Your task to perform on an android device: delete location history Image 0: 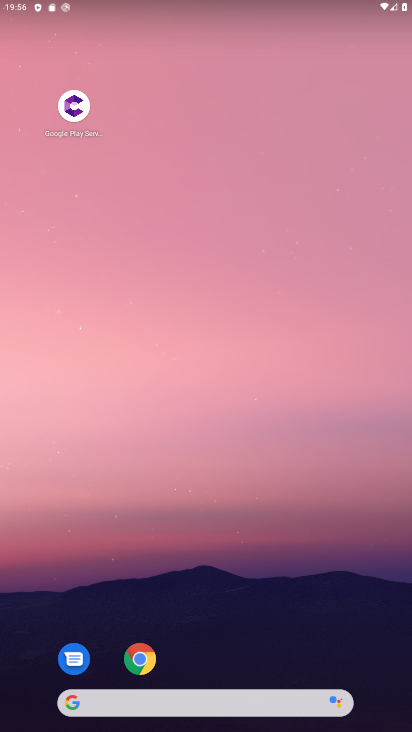
Step 0: drag from (347, 640) to (356, 41)
Your task to perform on an android device: delete location history Image 1: 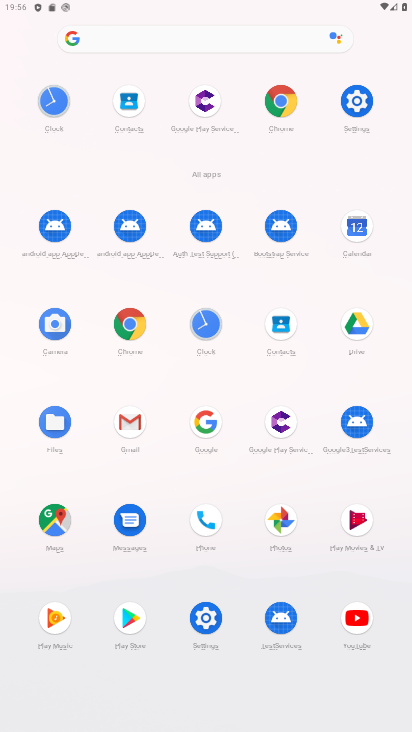
Step 1: click (359, 107)
Your task to perform on an android device: delete location history Image 2: 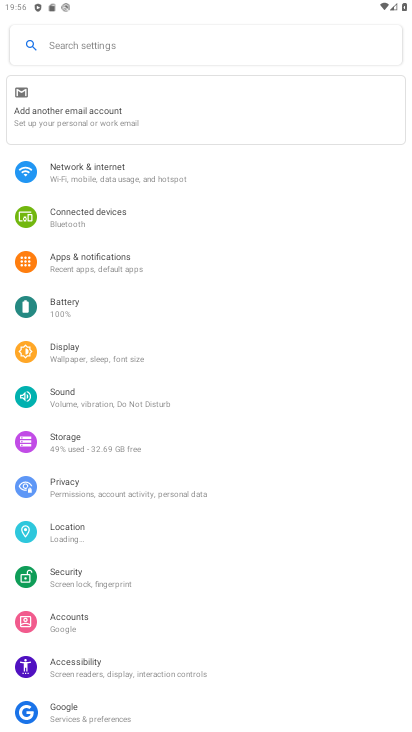
Step 2: drag from (337, 369) to (334, 221)
Your task to perform on an android device: delete location history Image 3: 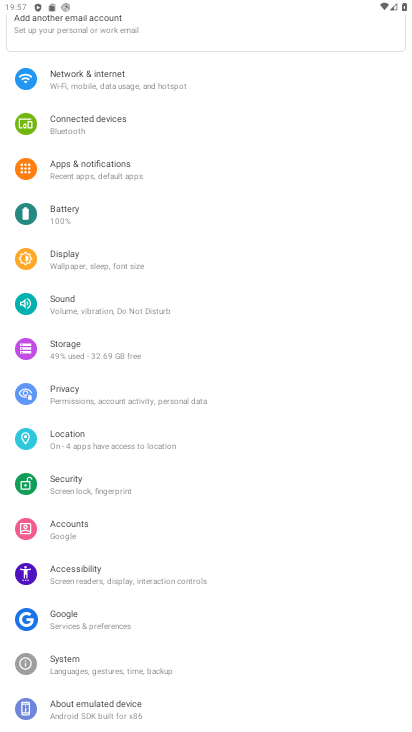
Step 3: drag from (342, 468) to (329, 322)
Your task to perform on an android device: delete location history Image 4: 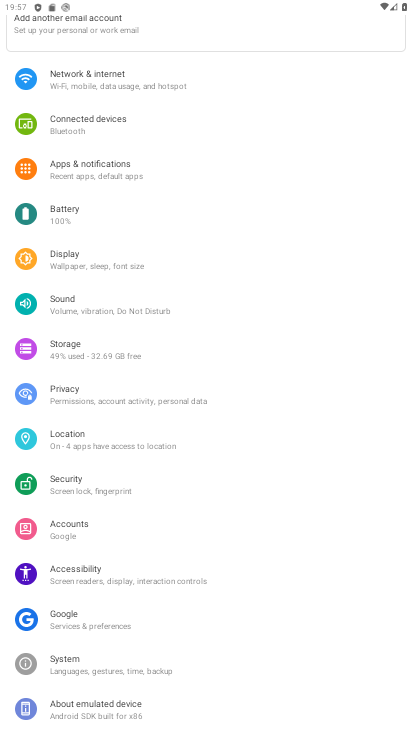
Step 4: press back button
Your task to perform on an android device: delete location history Image 5: 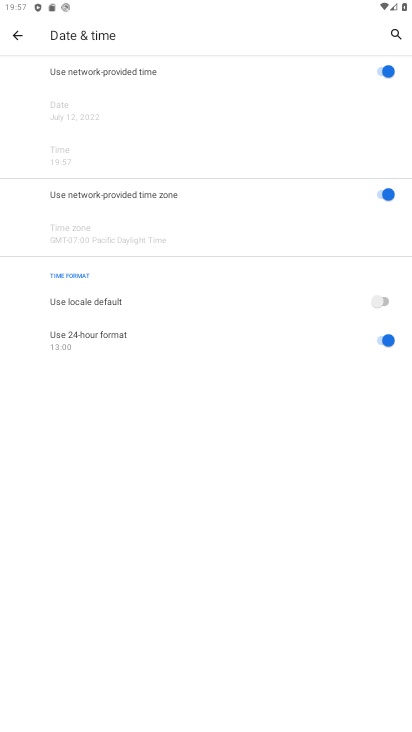
Step 5: press home button
Your task to perform on an android device: delete location history Image 6: 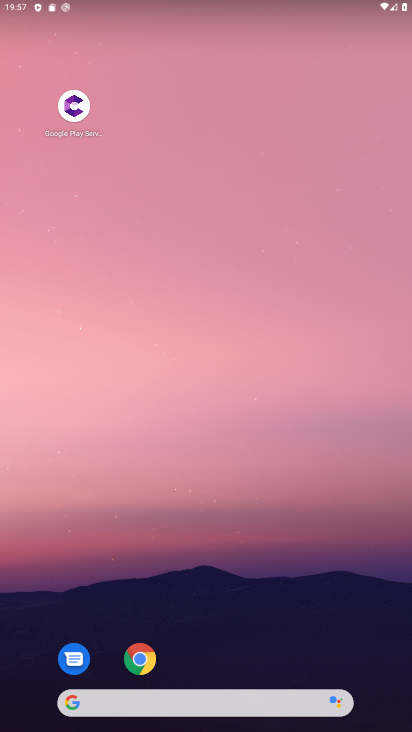
Step 6: drag from (352, 633) to (353, 91)
Your task to perform on an android device: delete location history Image 7: 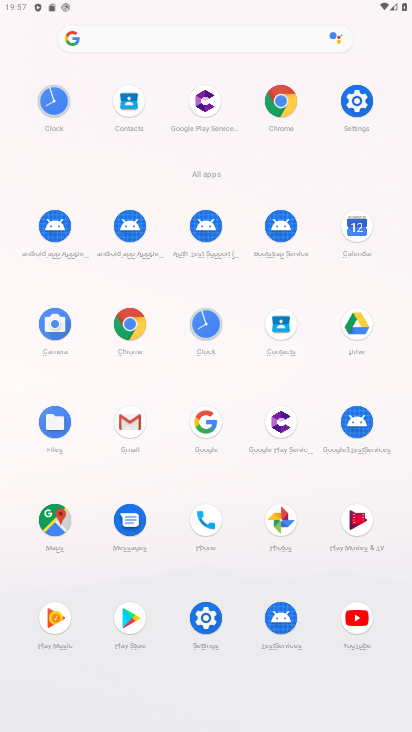
Step 7: click (60, 526)
Your task to perform on an android device: delete location history Image 8: 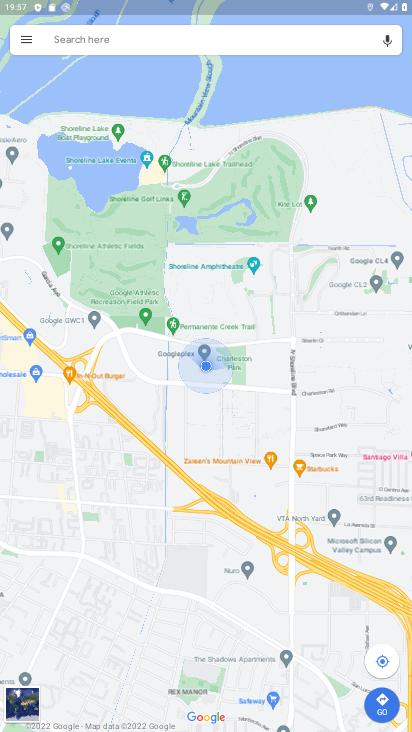
Step 8: click (26, 37)
Your task to perform on an android device: delete location history Image 9: 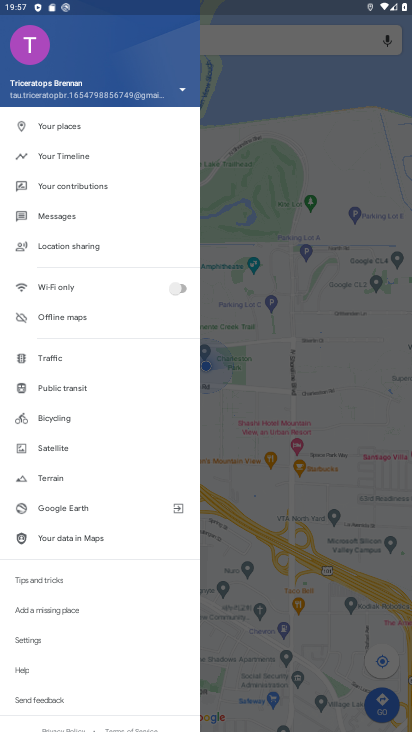
Step 9: click (82, 154)
Your task to perform on an android device: delete location history Image 10: 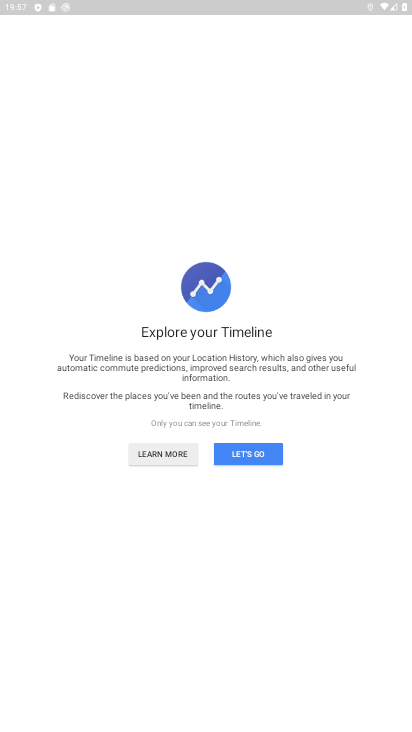
Step 10: click (265, 457)
Your task to perform on an android device: delete location history Image 11: 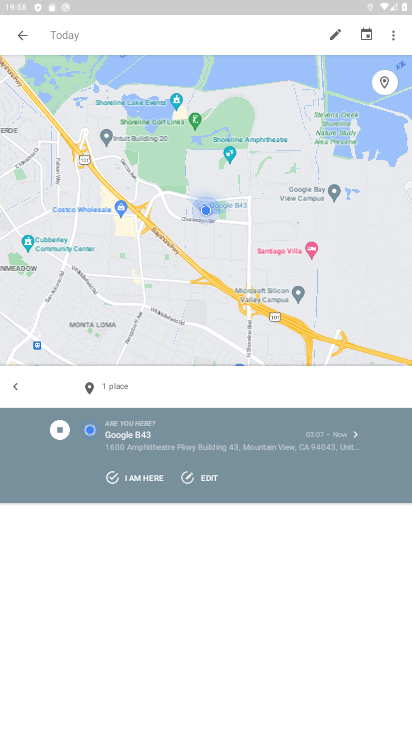
Step 11: click (392, 38)
Your task to perform on an android device: delete location history Image 12: 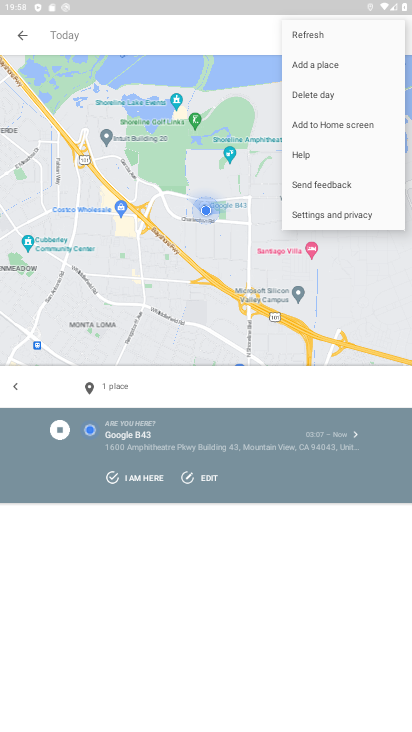
Step 12: click (357, 217)
Your task to perform on an android device: delete location history Image 13: 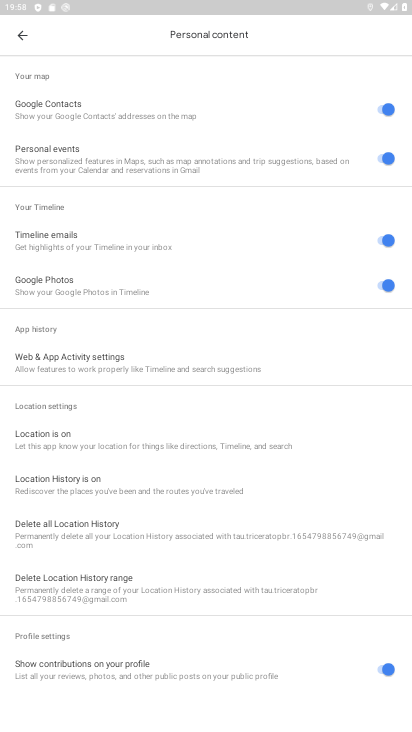
Step 13: drag from (317, 398) to (310, 226)
Your task to perform on an android device: delete location history Image 14: 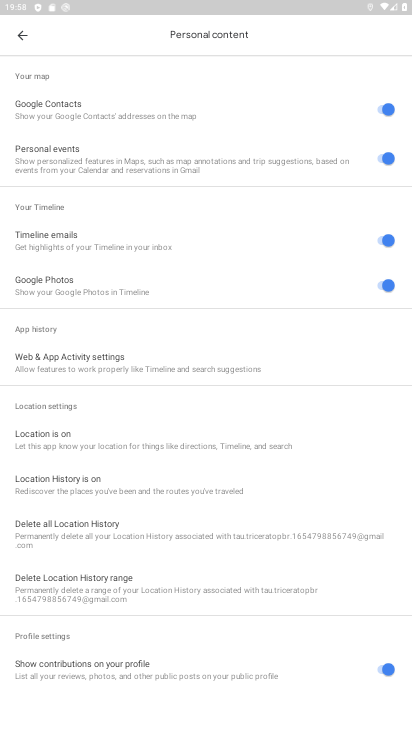
Step 14: click (112, 523)
Your task to perform on an android device: delete location history Image 15: 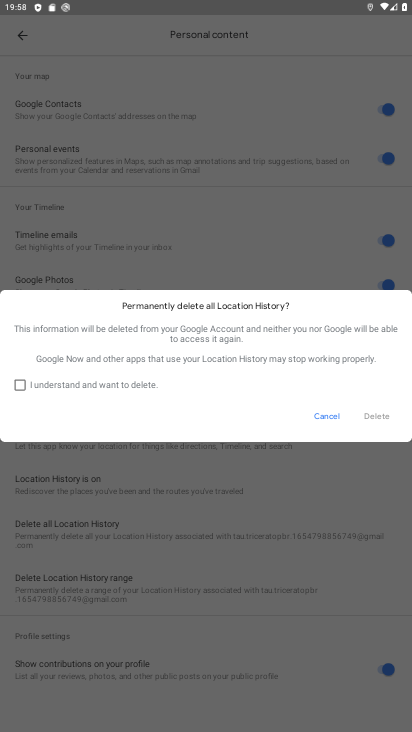
Step 15: click (24, 381)
Your task to perform on an android device: delete location history Image 16: 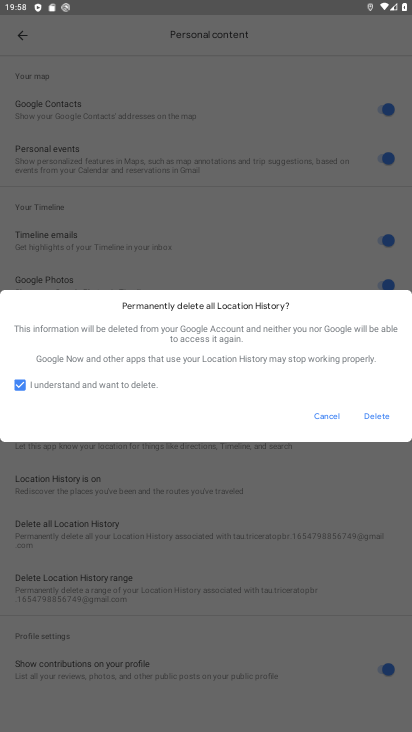
Step 16: click (379, 416)
Your task to perform on an android device: delete location history Image 17: 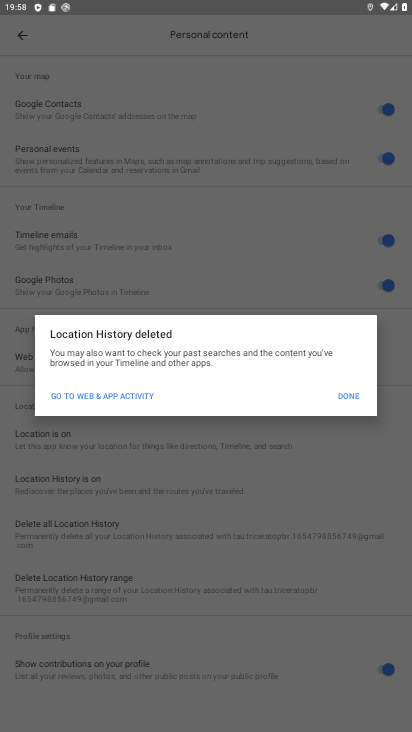
Step 17: click (353, 393)
Your task to perform on an android device: delete location history Image 18: 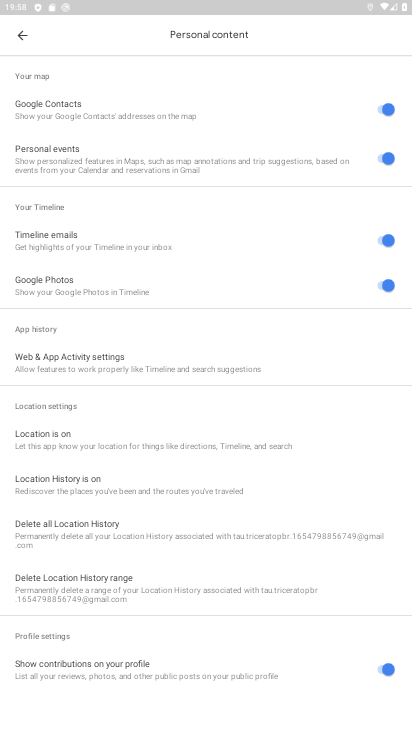
Step 18: task complete